Your task to perform on an android device: Turn on the flashlight Image 0: 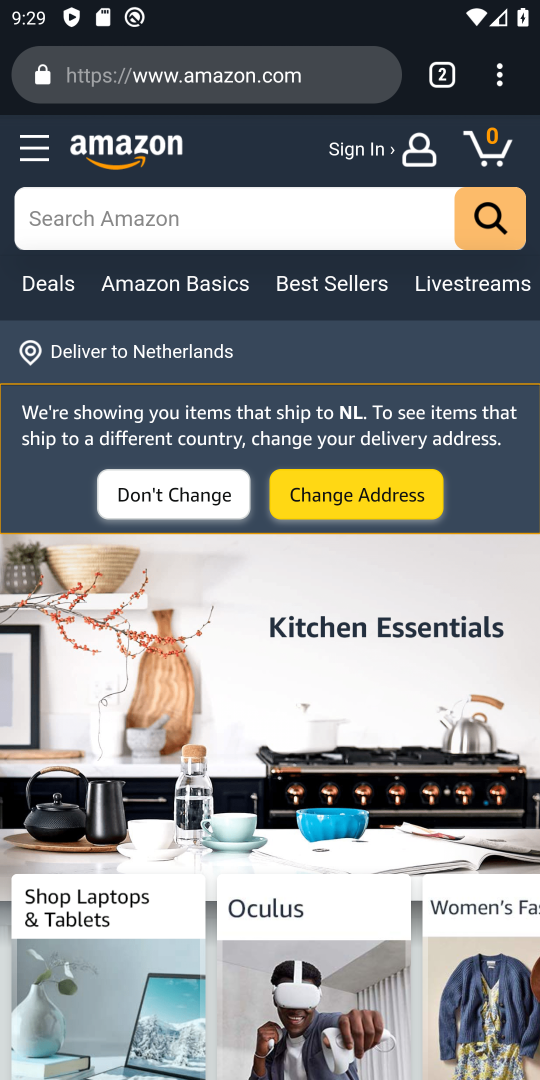
Step 0: press home button
Your task to perform on an android device: Turn on the flashlight Image 1: 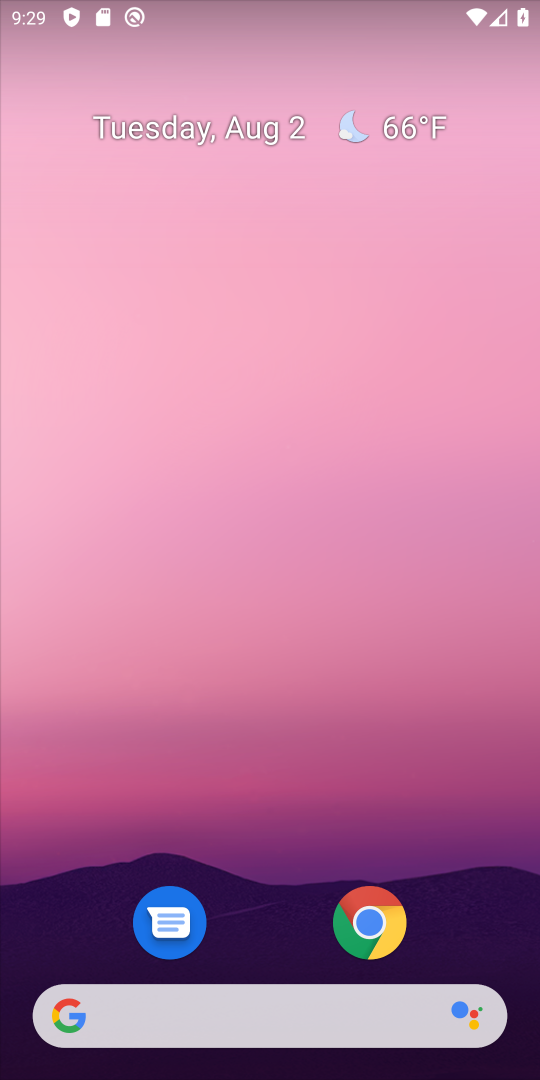
Step 1: drag from (358, 19) to (341, 617)
Your task to perform on an android device: Turn on the flashlight Image 2: 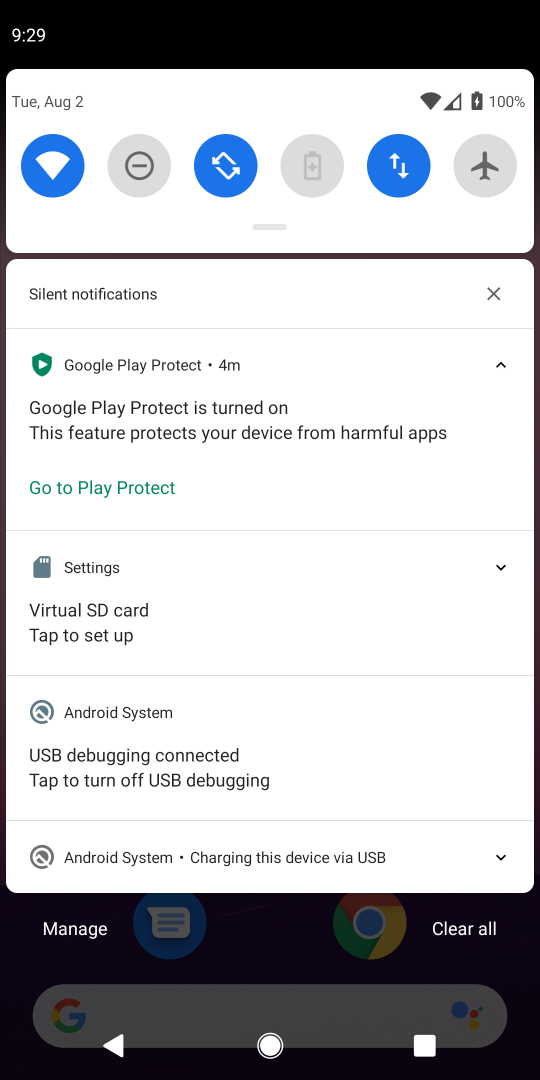
Step 2: drag from (274, 191) to (283, 1003)
Your task to perform on an android device: Turn on the flashlight Image 3: 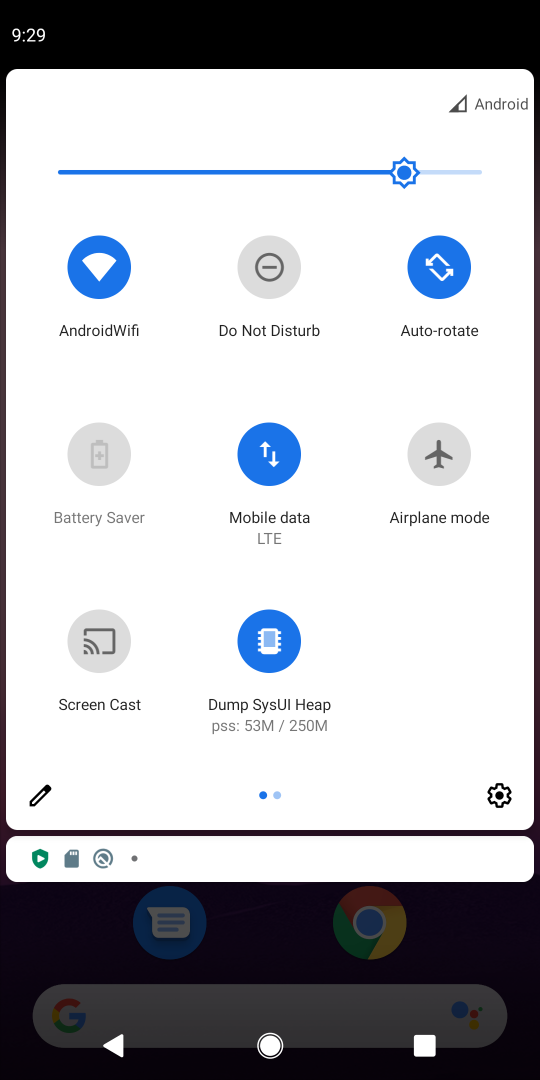
Step 3: click (40, 803)
Your task to perform on an android device: Turn on the flashlight Image 4: 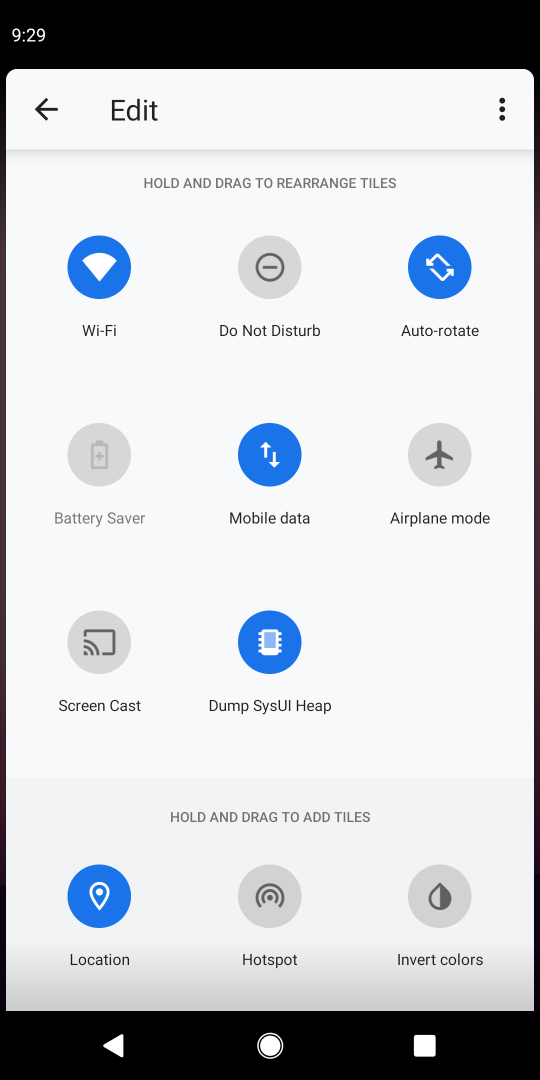
Step 4: task complete